Your task to perform on an android device: Go to network settings Image 0: 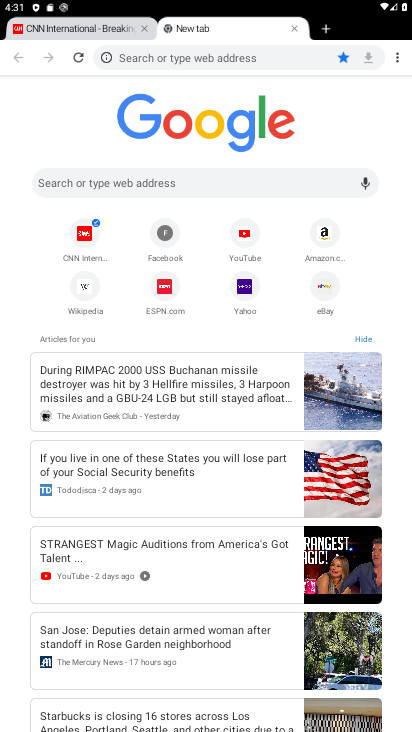
Step 0: press home button
Your task to perform on an android device: Go to network settings Image 1: 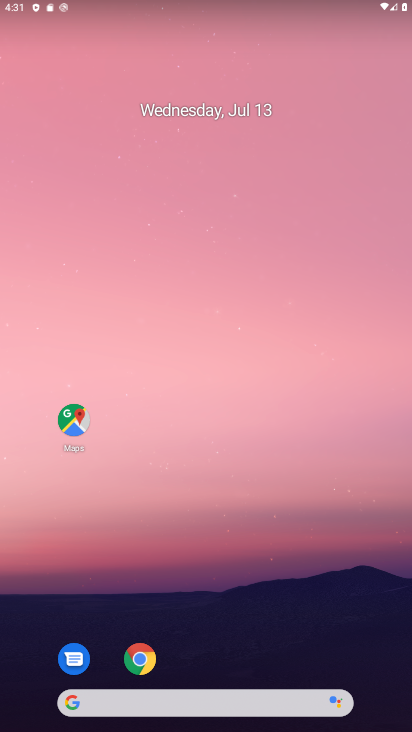
Step 1: drag from (357, 657) to (318, 59)
Your task to perform on an android device: Go to network settings Image 2: 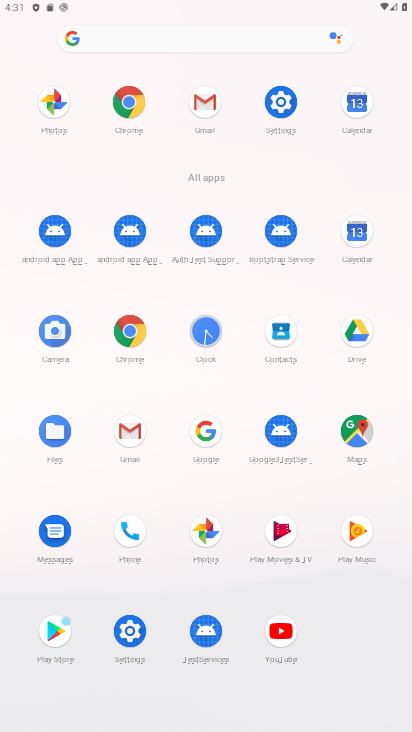
Step 2: click (287, 93)
Your task to perform on an android device: Go to network settings Image 3: 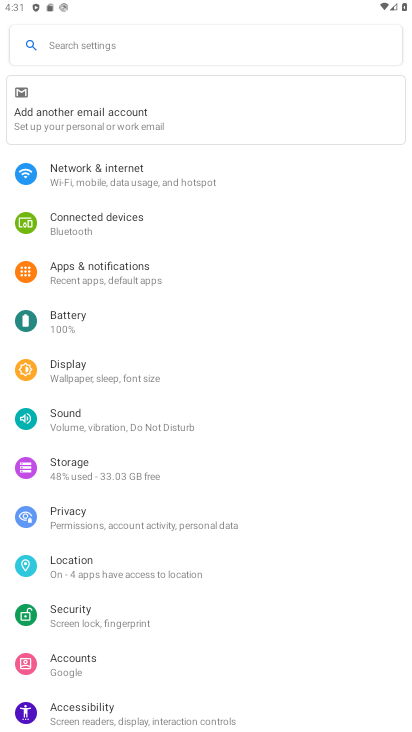
Step 3: click (149, 174)
Your task to perform on an android device: Go to network settings Image 4: 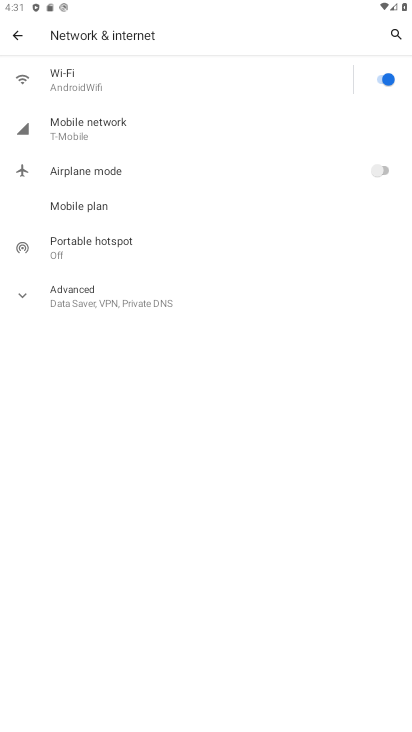
Step 4: task complete